Your task to perform on an android device: What is the recent news? Image 0: 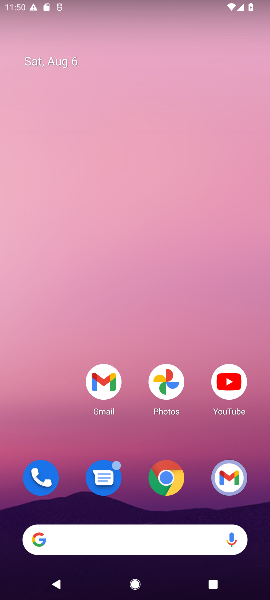
Step 0: drag from (119, 533) to (119, 265)
Your task to perform on an android device: What is the recent news? Image 1: 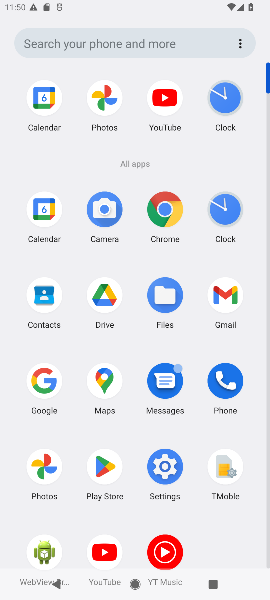
Step 1: click (44, 380)
Your task to perform on an android device: What is the recent news? Image 2: 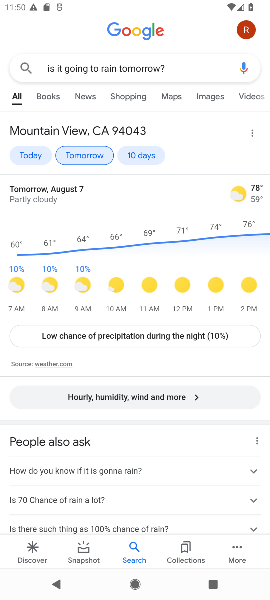
Step 2: click (173, 72)
Your task to perform on an android device: What is the recent news? Image 3: 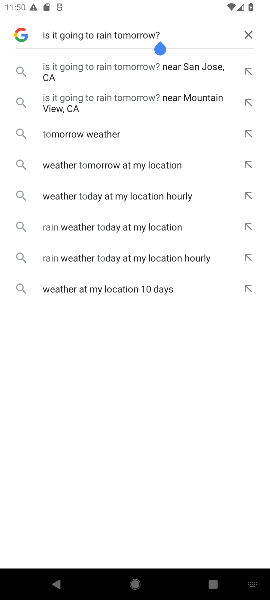
Step 3: click (250, 37)
Your task to perform on an android device: What is the recent news? Image 4: 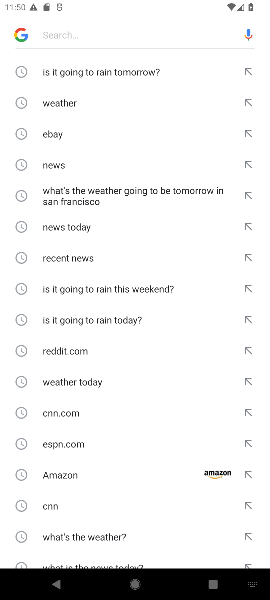
Step 4: click (58, 253)
Your task to perform on an android device: What is the recent news? Image 5: 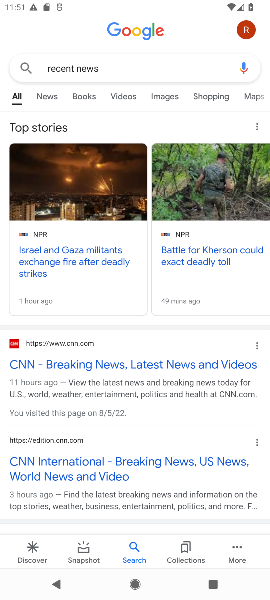
Step 5: task complete